Your task to perform on an android device: What's the weather today? Image 0: 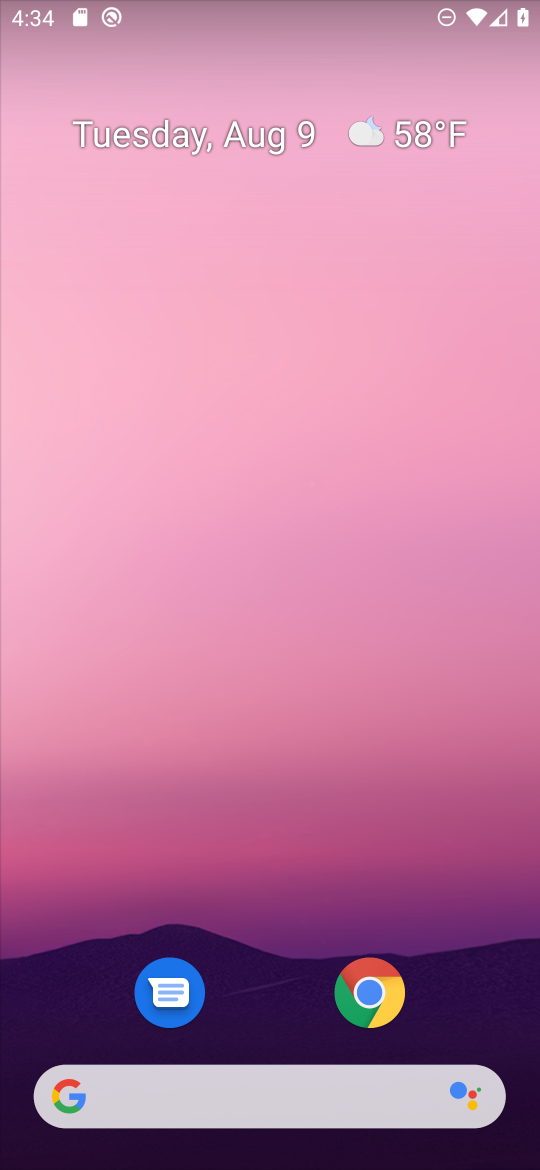
Step 0: drag from (325, 1081) to (204, 47)
Your task to perform on an android device: What's the weather today? Image 1: 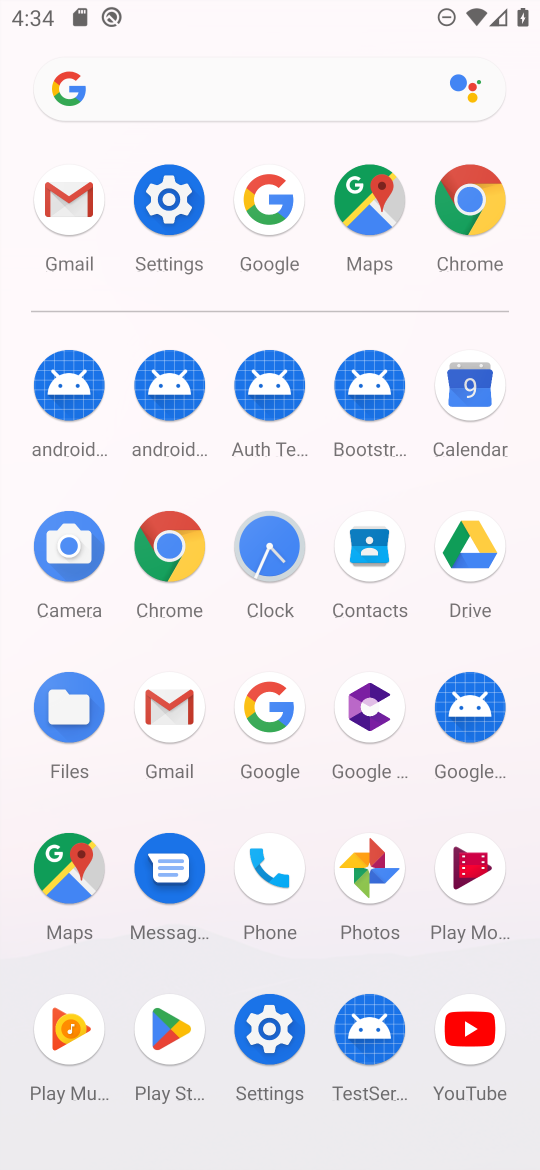
Step 1: click (178, 542)
Your task to perform on an android device: What's the weather today? Image 2: 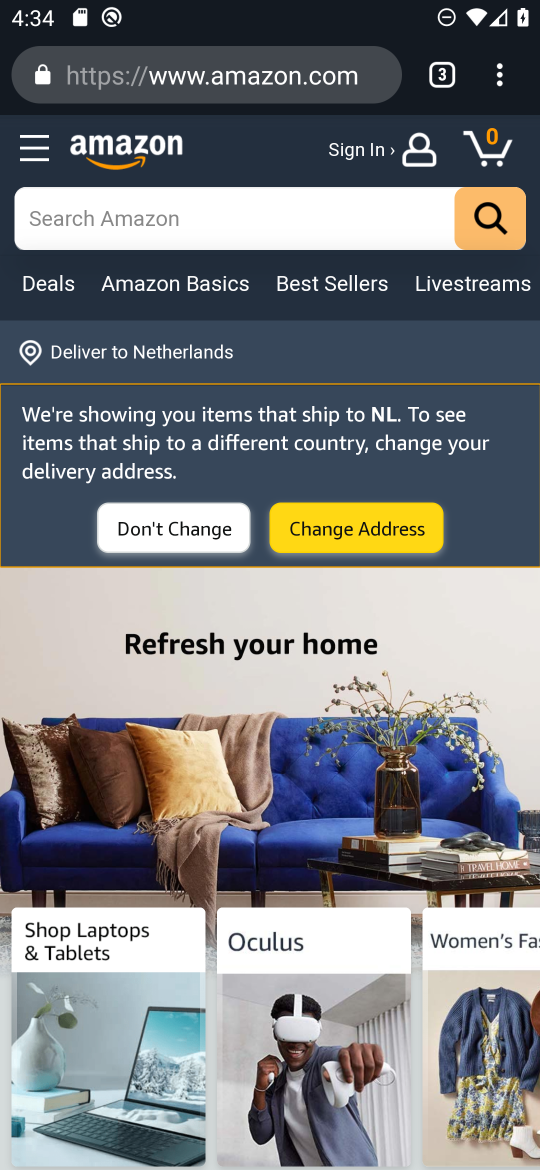
Step 2: click (181, 50)
Your task to perform on an android device: What's the weather today? Image 3: 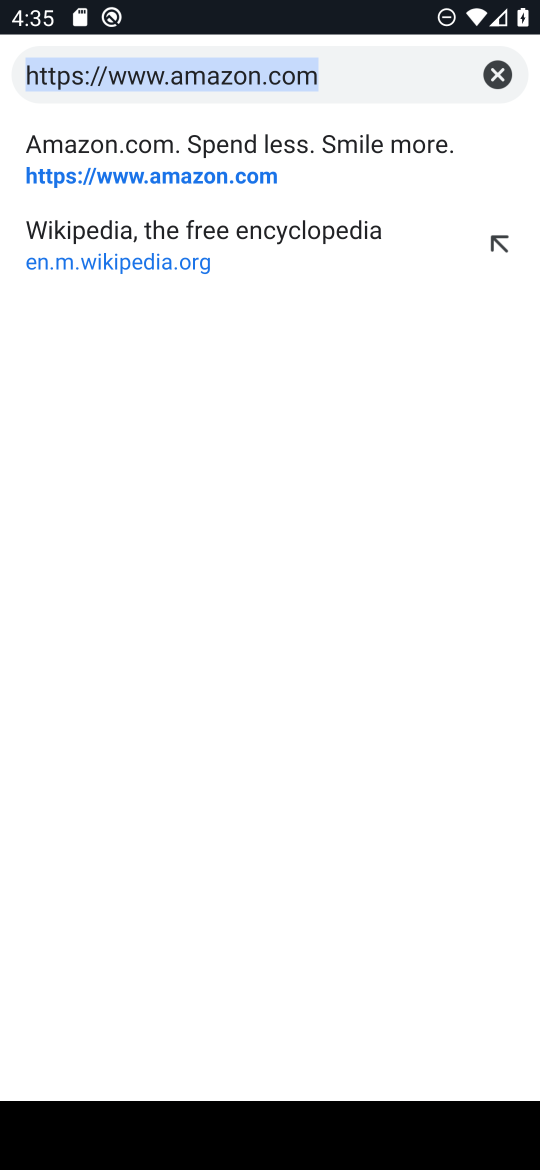
Step 3: type "weather today"
Your task to perform on an android device: What's the weather today? Image 4: 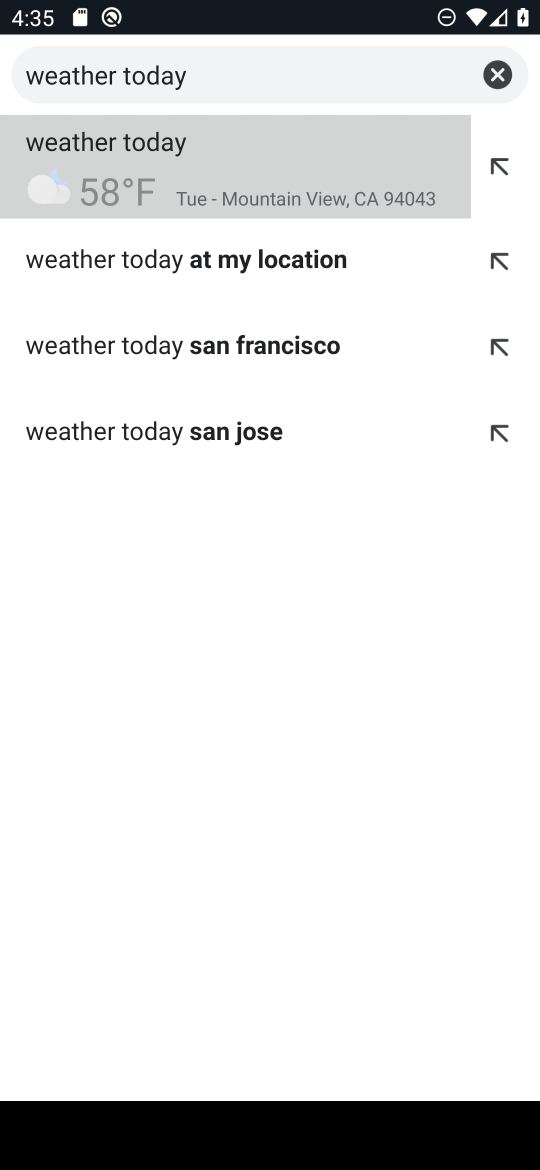
Step 4: click (305, 155)
Your task to perform on an android device: What's the weather today? Image 5: 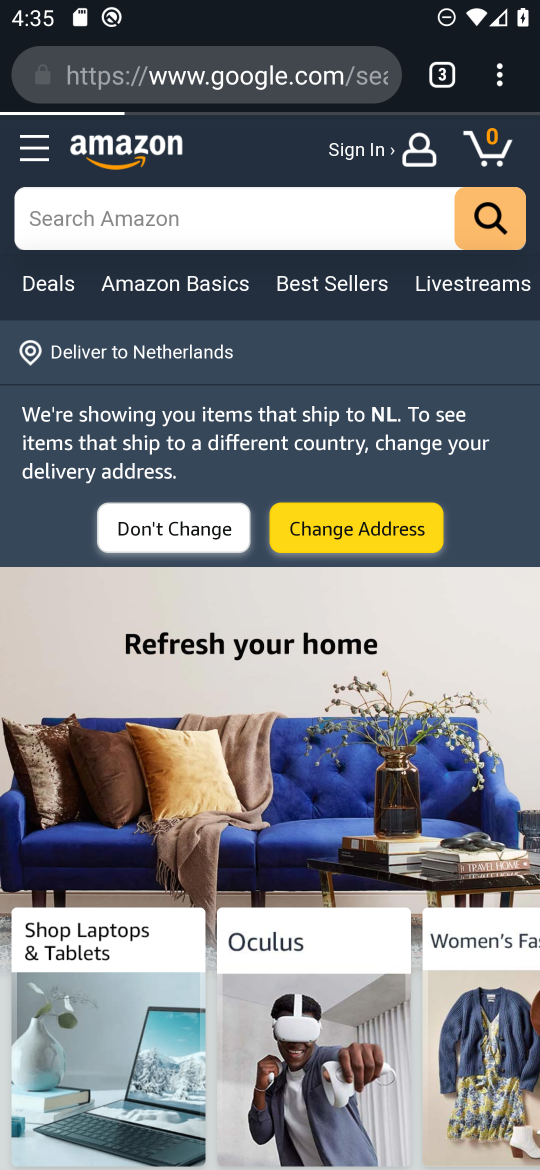
Step 5: task complete